Your task to perform on an android device: Is it going to rain this weekend? Image 0: 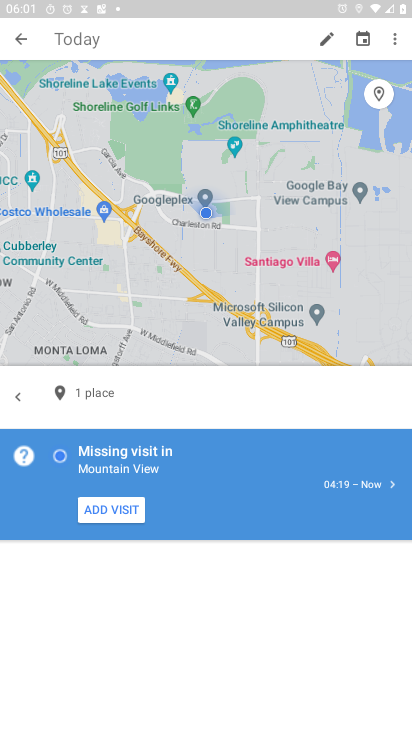
Step 0: press home button
Your task to perform on an android device: Is it going to rain this weekend? Image 1: 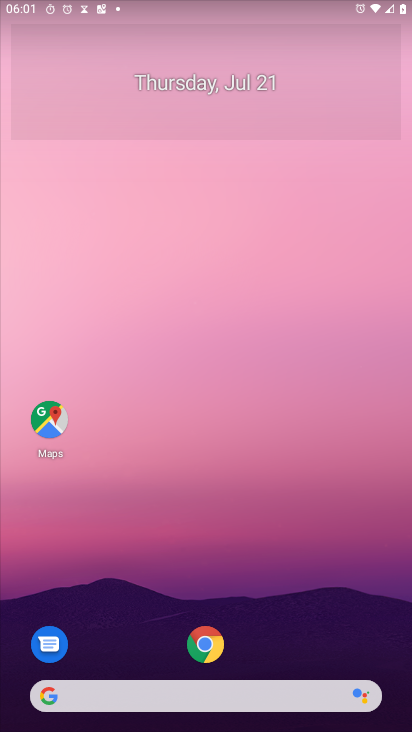
Step 1: click (40, 701)
Your task to perform on an android device: Is it going to rain this weekend? Image 2: 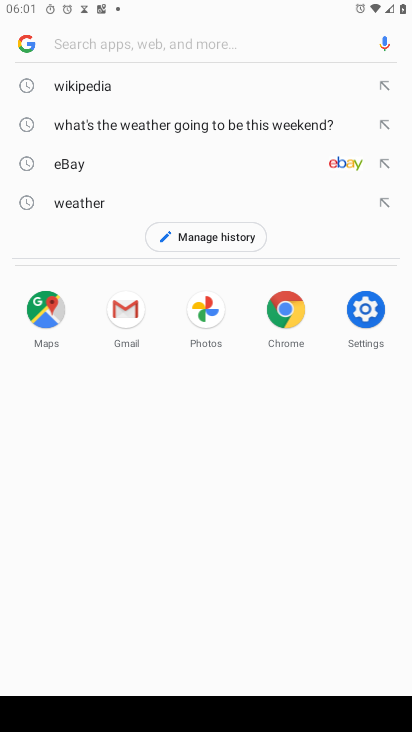
Step 2: type "Is it going to rain this weekend?"
Your task to perform on an android device: Is it going to rain this weekend? Image 3: 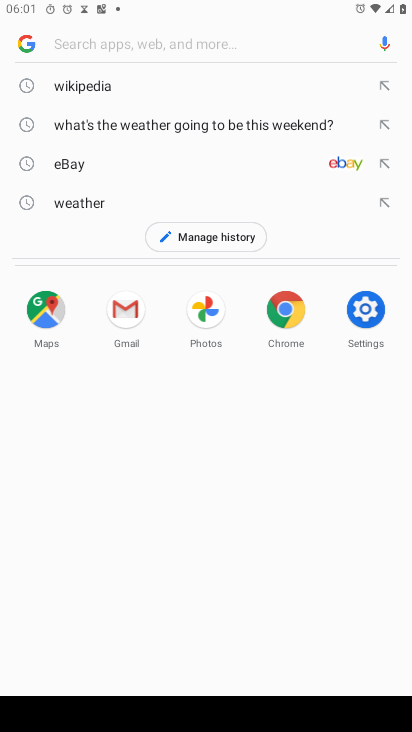
Step 3: click (106, 38)
Your task to perform on an android device: Is it going to rain this weekend? Image 4: 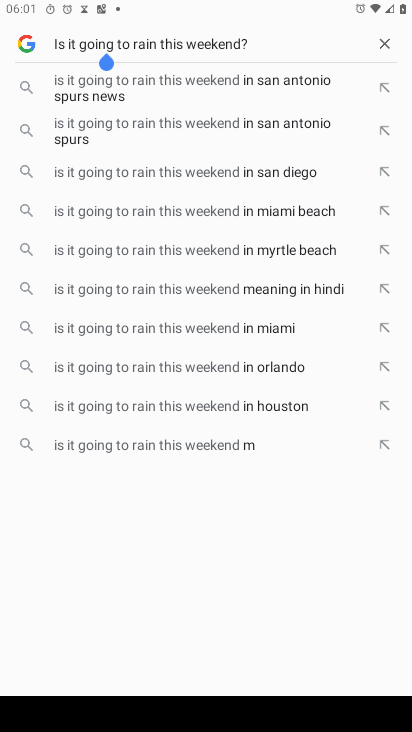
Step 4: press enter
Your task to perform on an android device: Is it going to rain this weekend? Image 5: 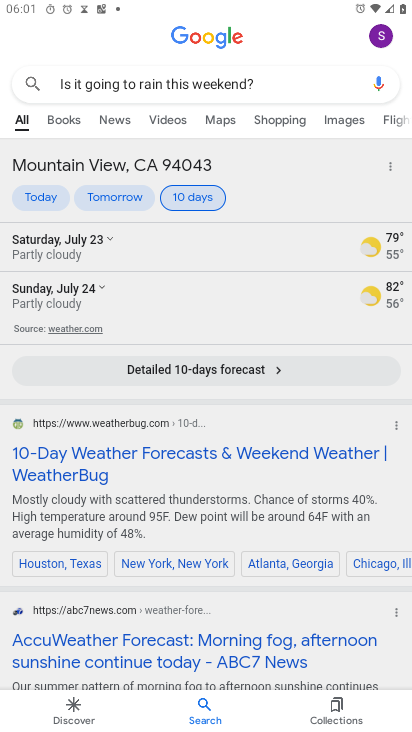
Step 5: task complete